Your task to perform on an android device: See recent photos Image 0: 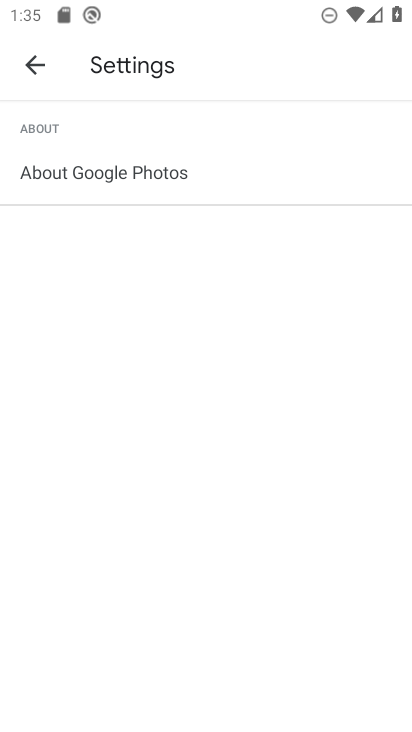
Step 0: click (404, 501)
Your task to perform on an android device: See recent photos Image 1: 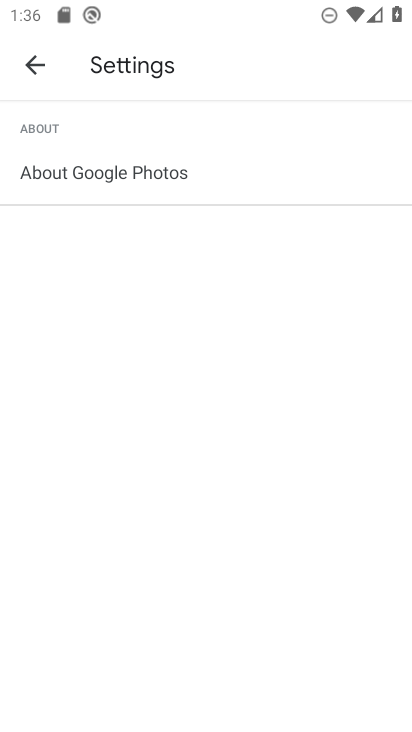
Step 1: press home button
Your task to perform on an android device: See recent photos Image 2: 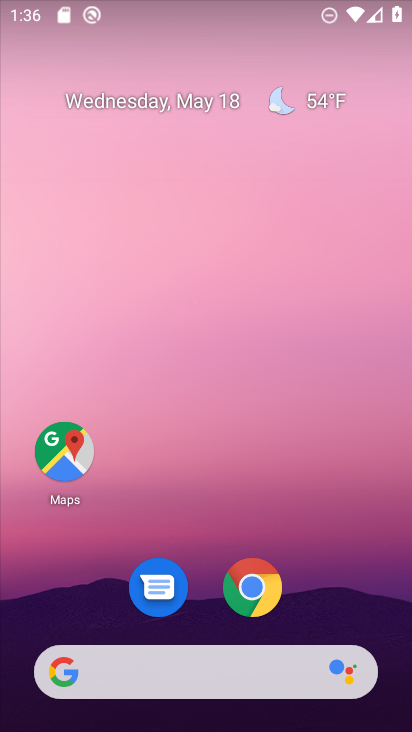
Step 2: drag from (77, 652) to (223, 150)
Your task to perform on an android device: See recent photos Image 3: 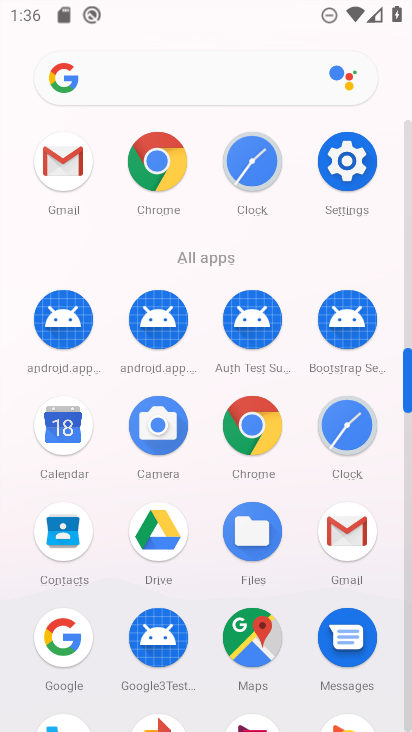
Step 3: drag from (106, 640) to (181, 431)
Your task to perform on an android device: See recent photos Image 4: 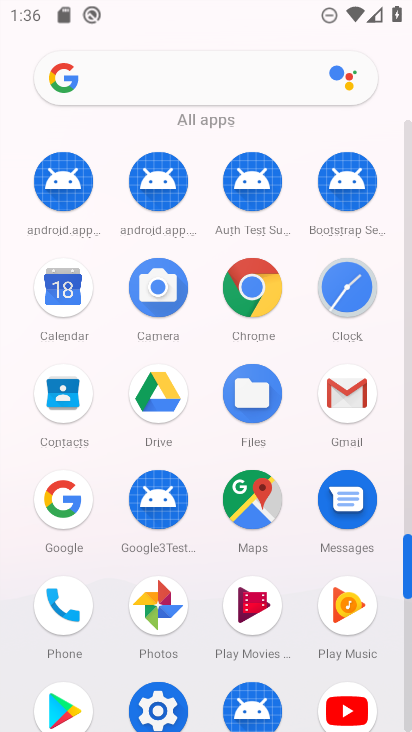
Step 4: click (169, 611)
Your task to perform on an android device: See recent photos Image 5: 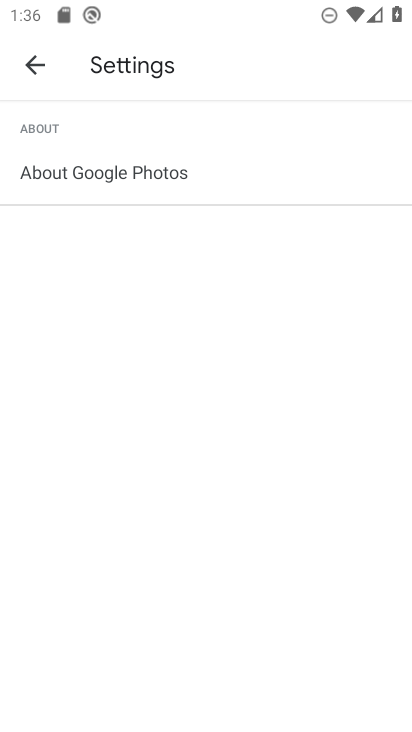
Step 5: click (45, 73)
Your task to perform on an android device: See recent photos Image 6: 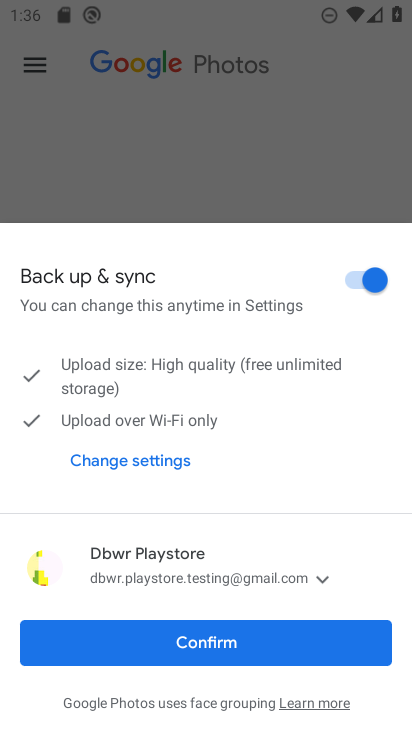
Step 6: click (202, 647)
Your task to perform on an android device: See recent photos Image 7: 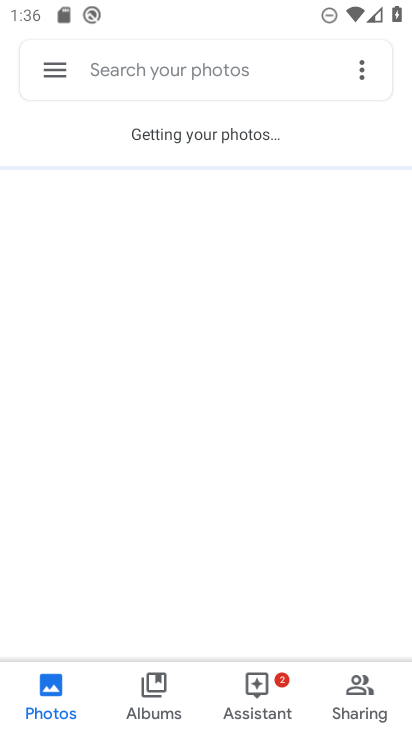
Step 7: task complete